Your task to perform on an android device: toggle translation in the chrome app Image 0: 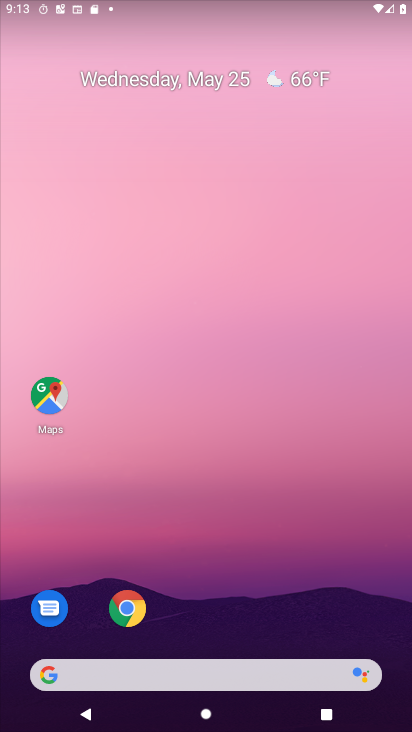
Step 0: click (126, 619)
Your task to perform on an android device: toggle translation in the chrome app Image 1: 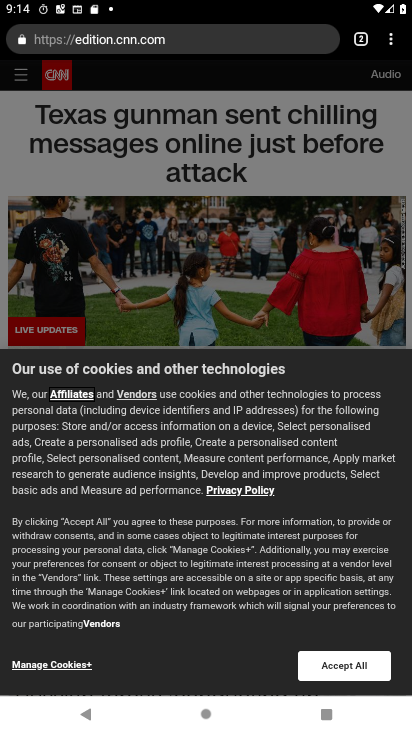
Step 1: click (392, 46)
Your task to perform on an android device: toggle translation in the chrome app Image 2: 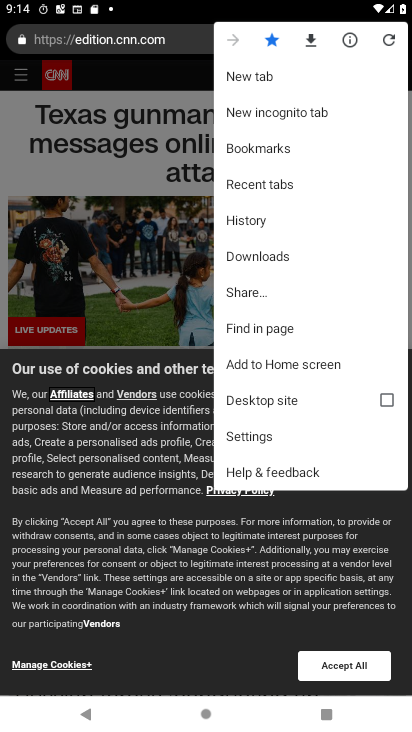
Step 2: click (251, 435)
Your task to perform on an android device: toggle translation in the chrome app Image 3: 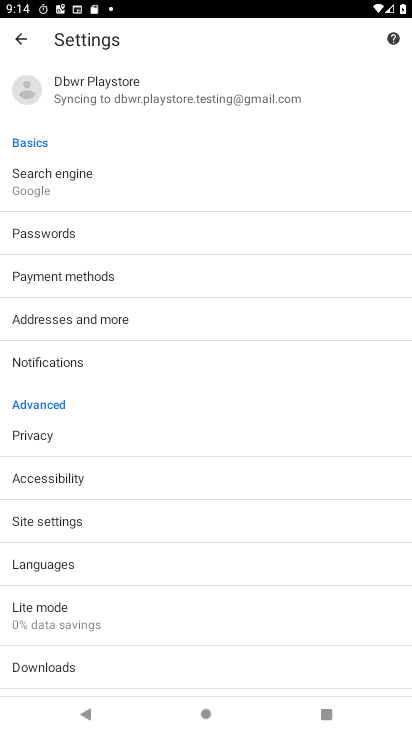
Step 3: click (49, 565)
Your task to perform on an android device: toggle translation in the chrome app Image 4: 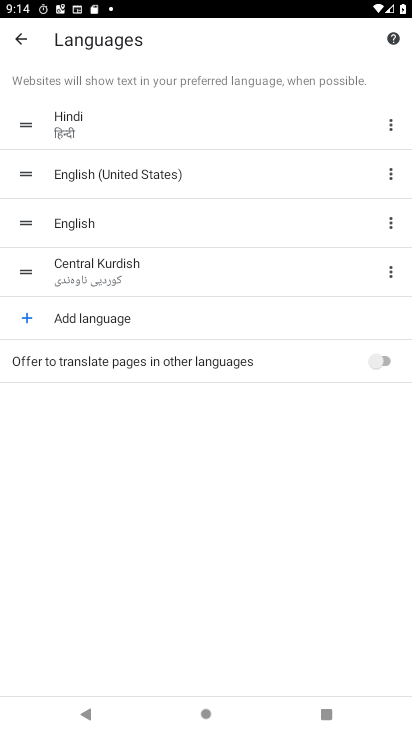
Step 4: click (384, 358)
Your task to perform on an android device: toggle translation in the chrome app Image 5: 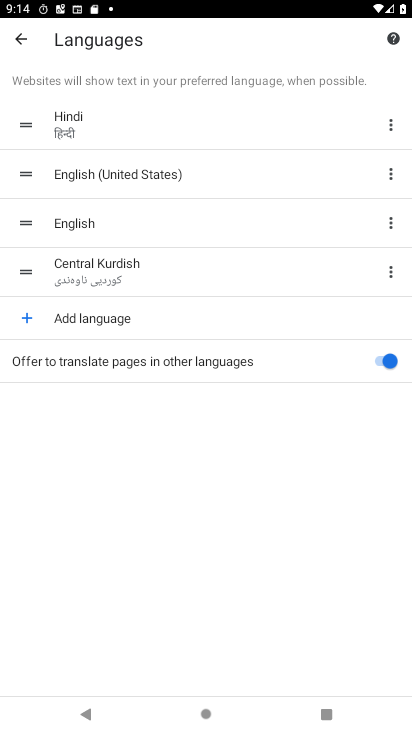
Step 5: task complete